Your task to perform on an android device: Search for sushi restaurants on Maps Image 0: 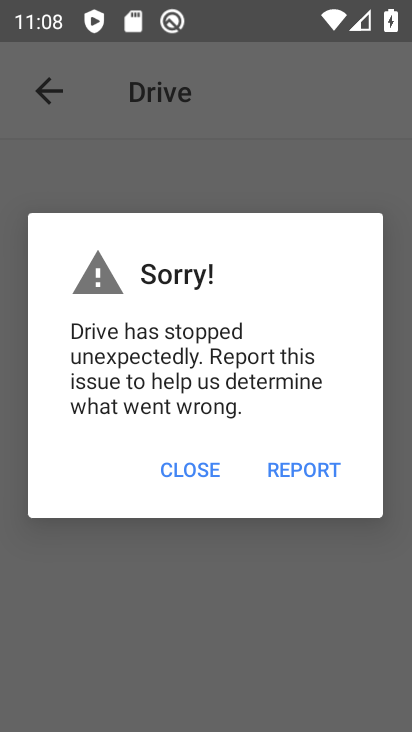
Step 0: press home button
Your task to perform on an android device: Search for sushi restaurants on Maps Image 1: 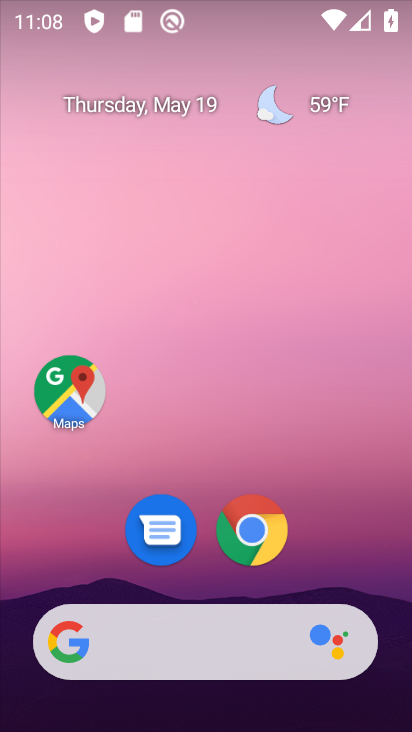
Step 1: drag from (361, 559) to (367, 90)
Your task to perform on an android device: Search for sushi restaurants on Maps Image 2: 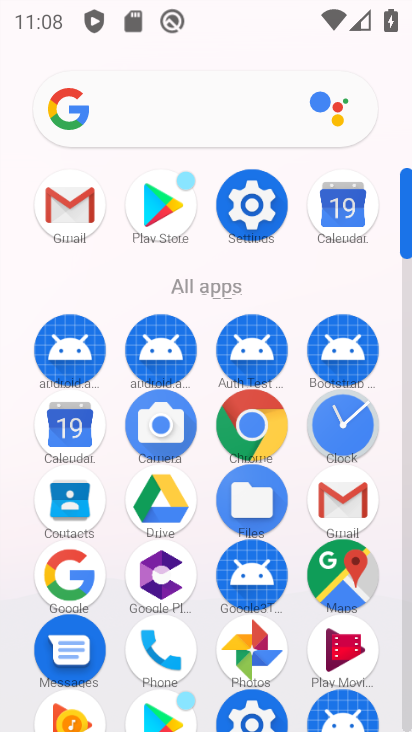
Step 2: click (343, 588)
Your task to perform on an android device: Search for sushi restaurants on Maps Image 3: 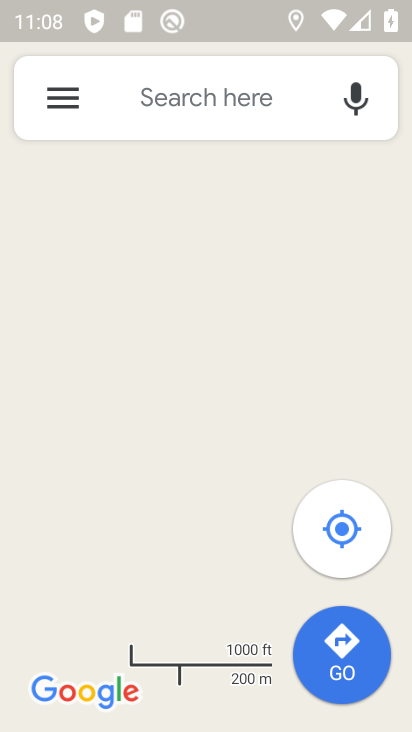
Step 3: click (187, 90)
Your task to perform on an android device: Search for sushi restaurants on Maps Image 4: 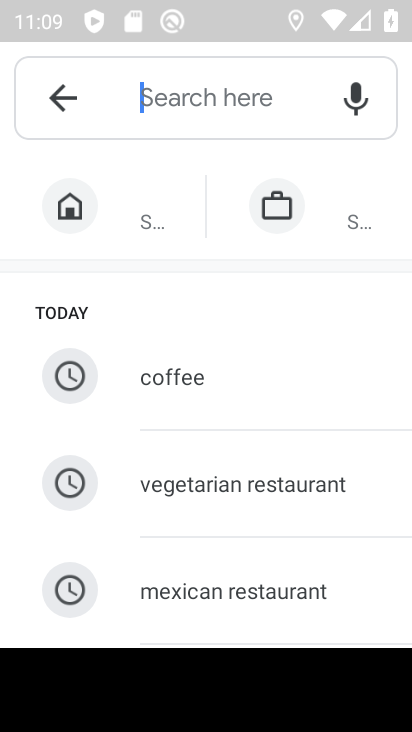
Step 4: type "sushi restaurants "
Your task to perform on an android device: Search for sushi restaurants on Maps Image 5: 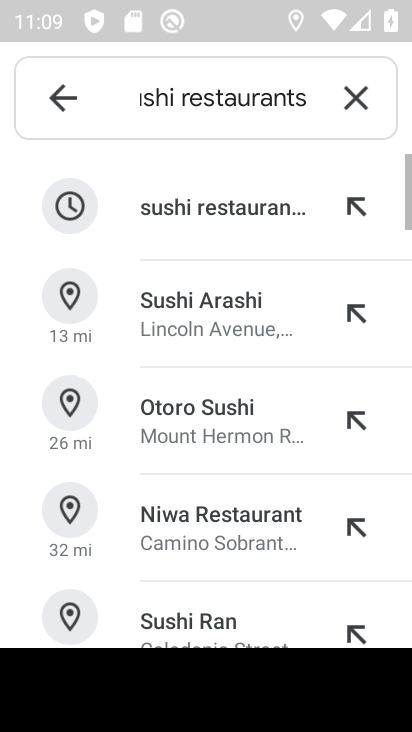
Step 5: click (164, 201)
Your task to perform on an android device: Search for sushi restaurants on Maps Image 6: 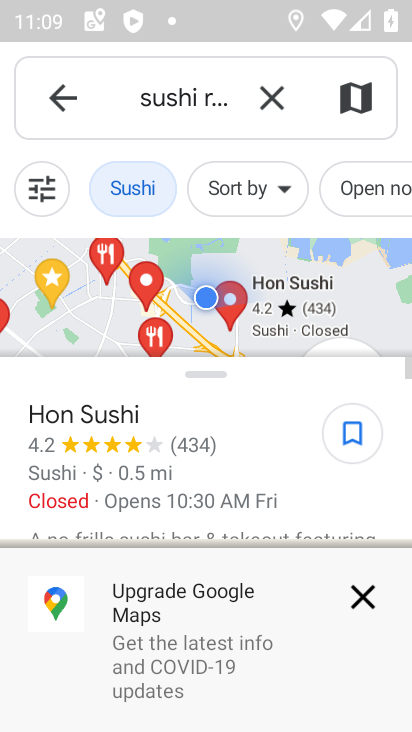
Step 6: task complete